Your task to perform on an android device: Clear the shopping cart on bestbuy.com. Add apple airpods pro to the cart on bestbuy.com Image 0: 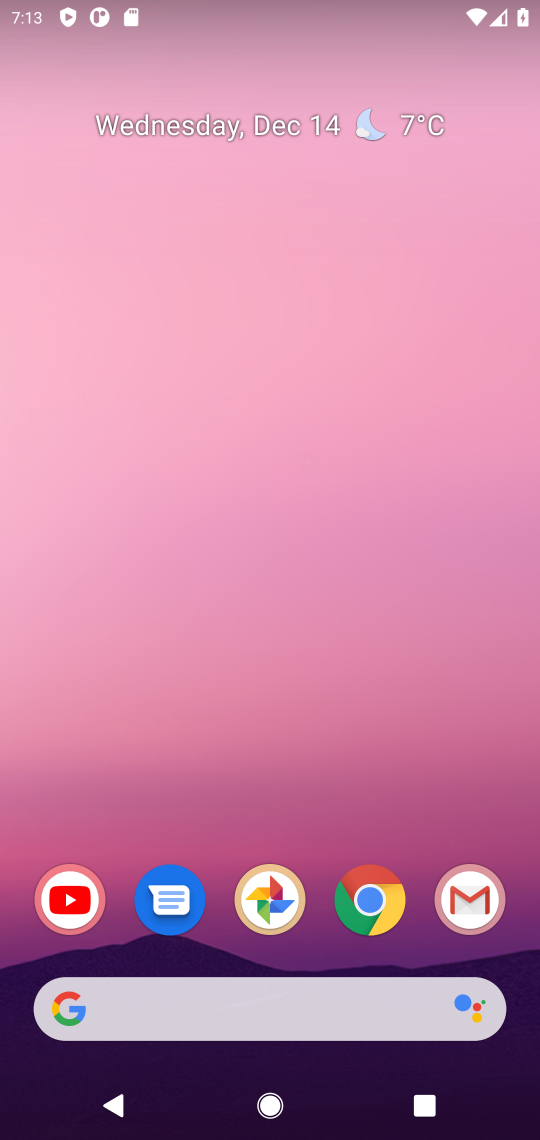
Step 0: click (243, 1002)
Your task to perform on an android device: Clear the shopping cart on bestbuy.com. Add apple airpods pro to the cart on bestbuy.com Image 1: 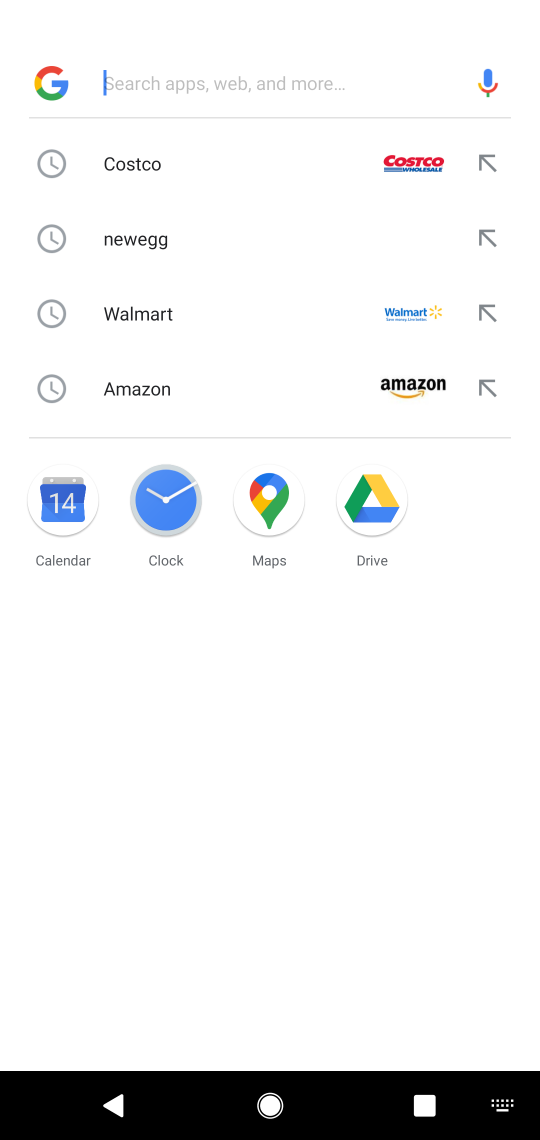
Step 1: type "bestbuy.com"
Your task to perform on an android device: Clear the shopping cart on bestbuy.com. Add apple airpods pro to the cart on bestbuy.com Image 2: 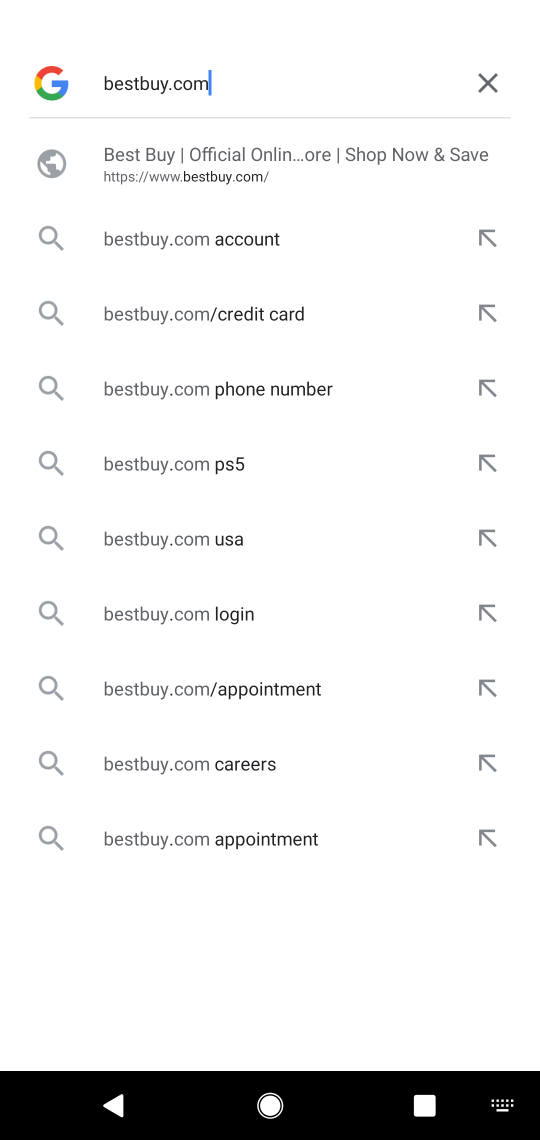
Step 2: click (231, 191)
Your task to perform on an android device: Clear the shopping cart on bestbuy.com. Add apple airpods pro to the cart on bestbuy.com Image 3: 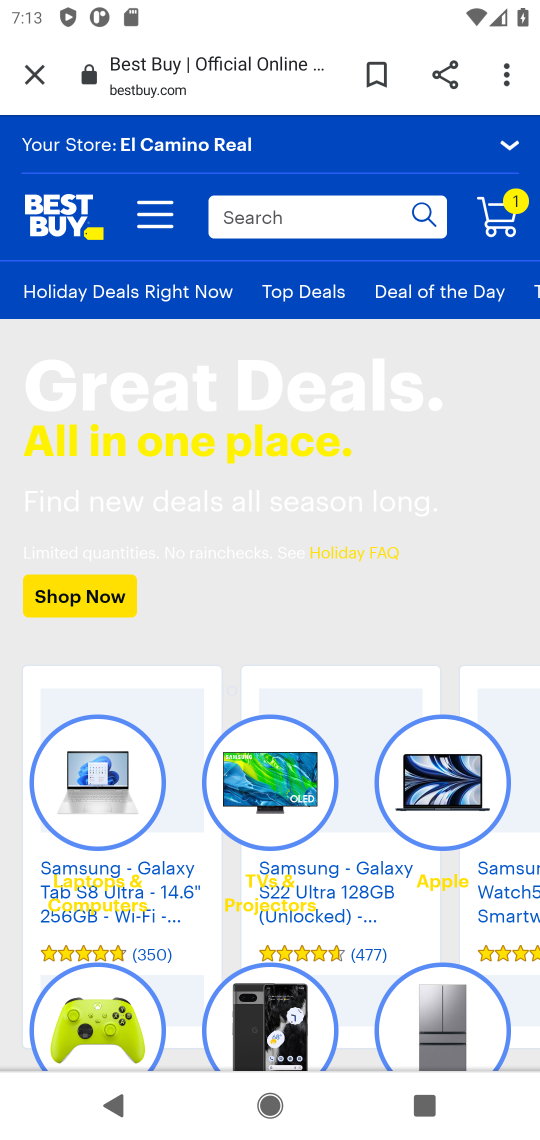
Step 3: click (501, 230)
Your task to perform on an android device: Clear the shopping cart on bestbuy.com. Add apple airpods pro to the cart on bestbuy.com Image 4: 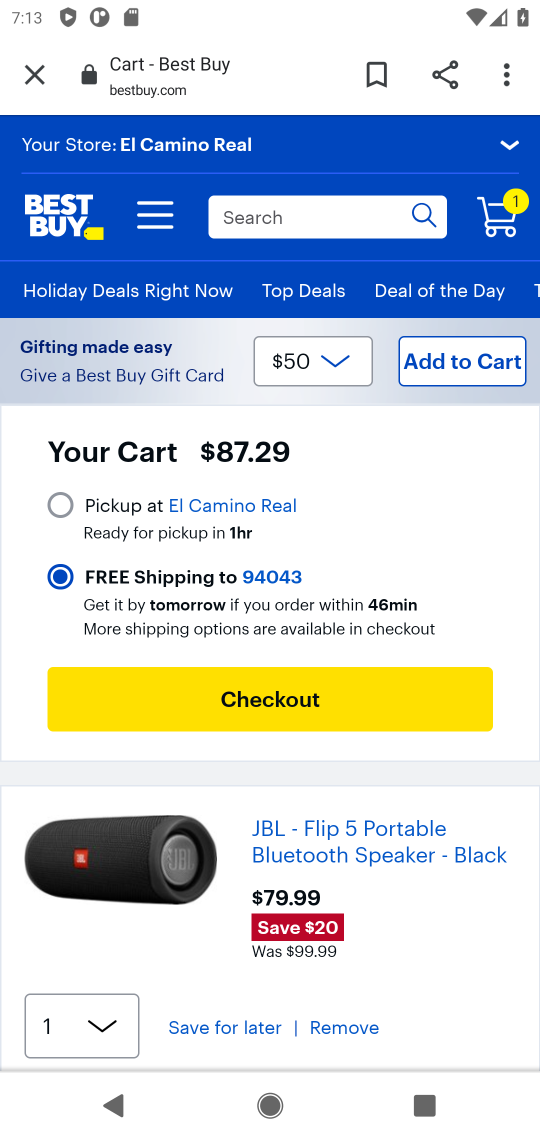
Step 4: click (322, 1030)
Your task to perform on an android device: Clear the shopping cart on bestbuy.com. Add apple airpods pro to the cart on bestbuy.com Image 5: 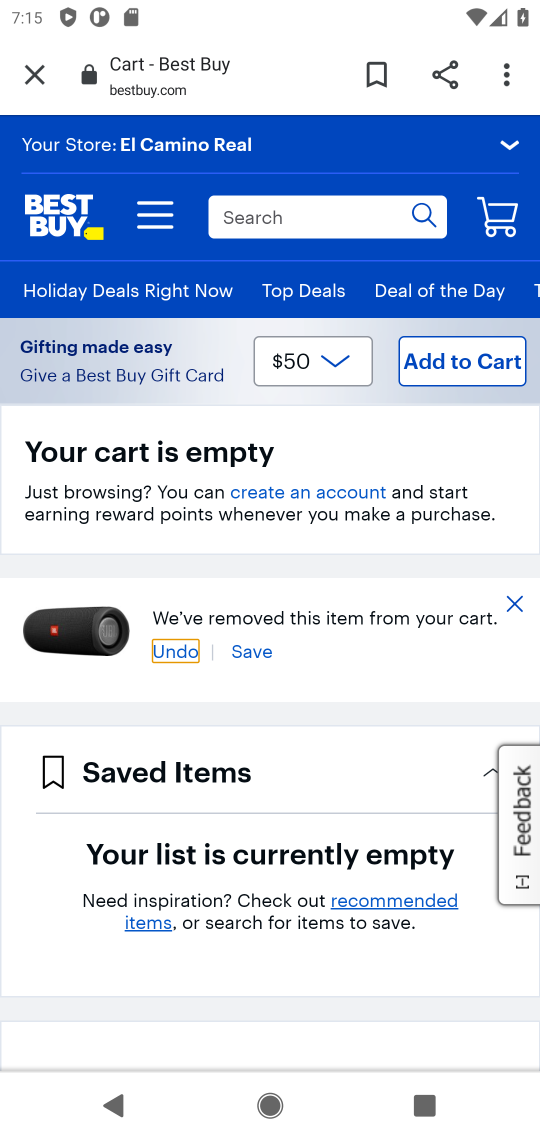
Step 5: click (362, 204)
Your task to perform on an android device: Clear the shopping cart on bestbuy.com. Add apple airpods pro to the cart on bestbuy.com Image 6: 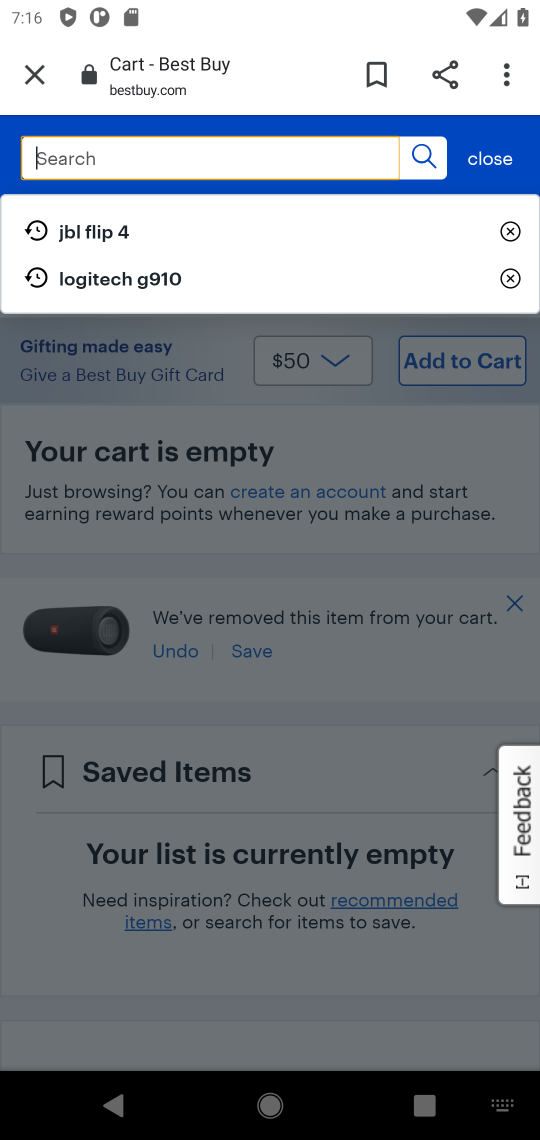
Step 6: type "apple airpods pro"
Your task to perform on an android device: Clear the shopping cart on bestbuy.com. Add apple airpods pro to the cart on bestbuy.com Image 7: 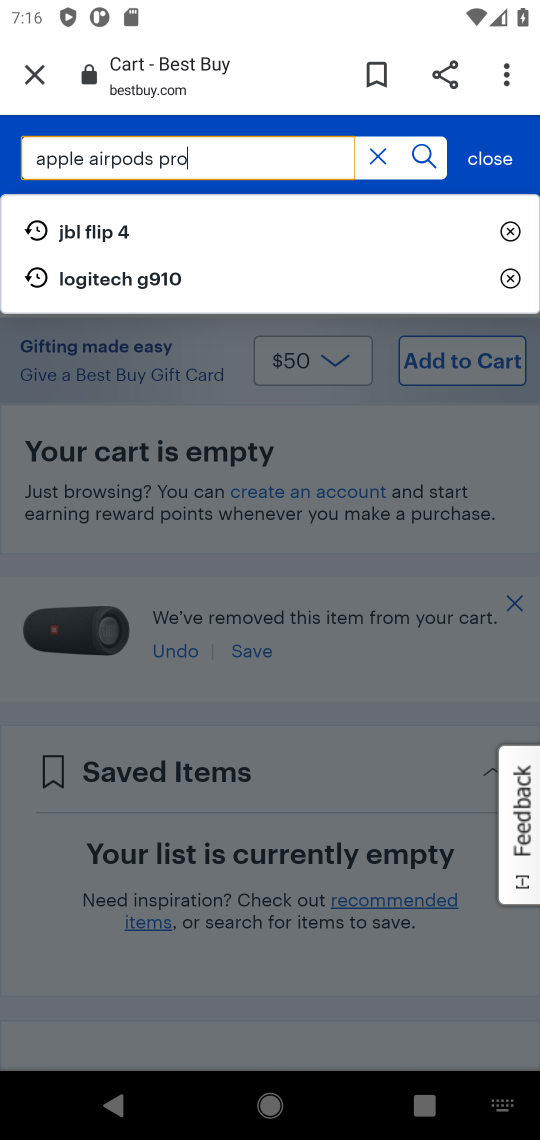
Step 7: type ""
Your task to perform on an android device: Clear the shopping cart on bestbuy.com. Add apple airpods pro to the cart on bestbuy.com Image 8: 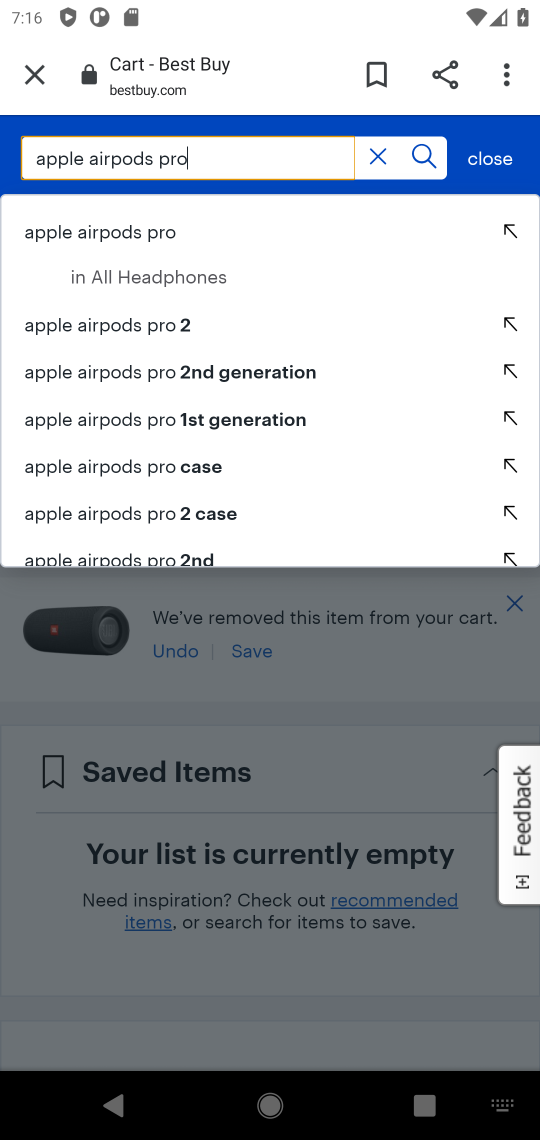
Step 8: click (413, 145)
Your task to perform on an android device: Clear the shopping cart on bestbuy.com. Add apple airpods pro to the cart on bestbuy.com Image 9: 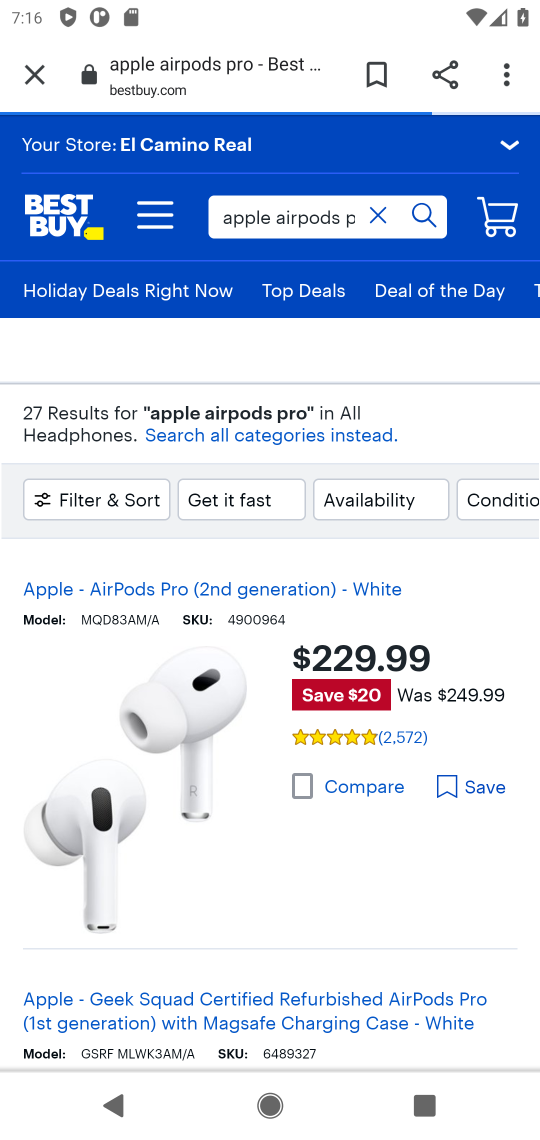
Step 9: drag from (203, 834) to (253, 620)
Your task to perform on an android device: Clear the shopping cart on bestbuy.com. Add apple airpods pro to the cart on bestbuy.com Image 10: 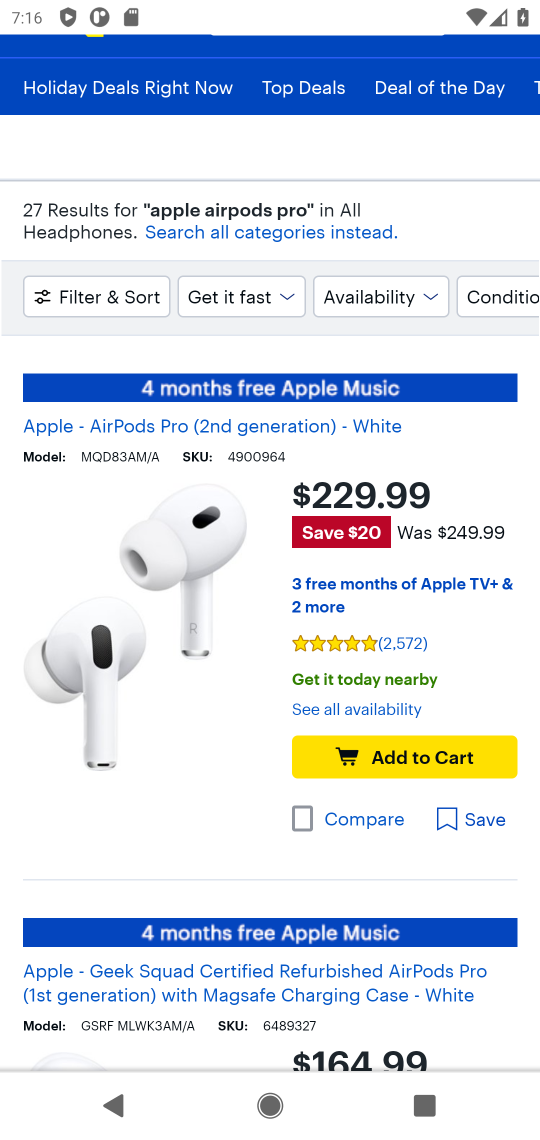
Step 10: click (403, 686)
Your task to perform on an android device: Clear the shopping cart on bestbuy.com. Add apple airpods pro to the cart on bestbuy.com Image 11: 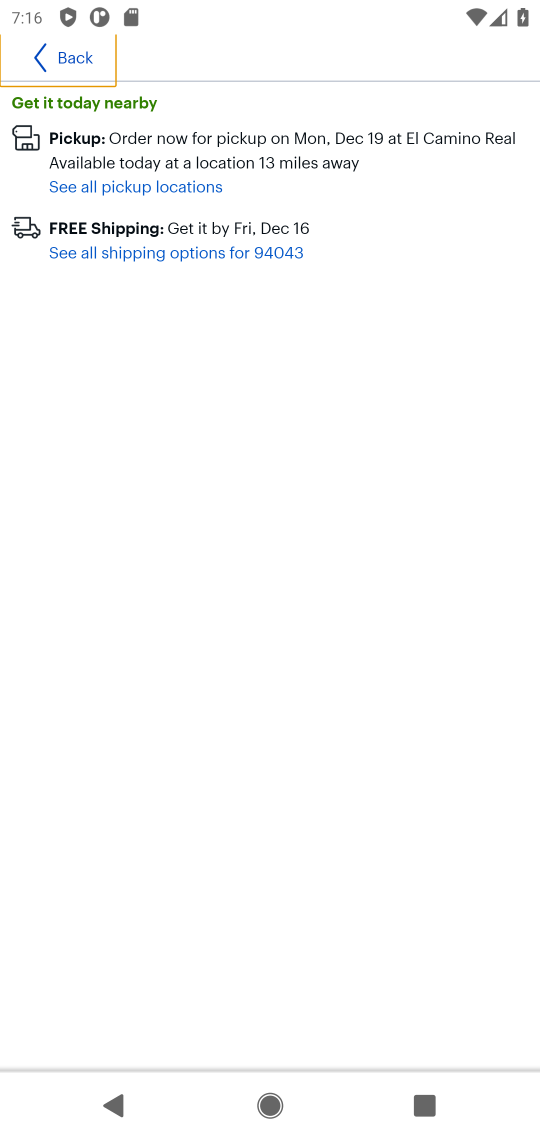
Step 11: click (48, 60)
Your task to perform on an android device: Clear the shopping cart on bestbuy.com. Add apple airpods pro to the cart on bestbuy.com Image 12: 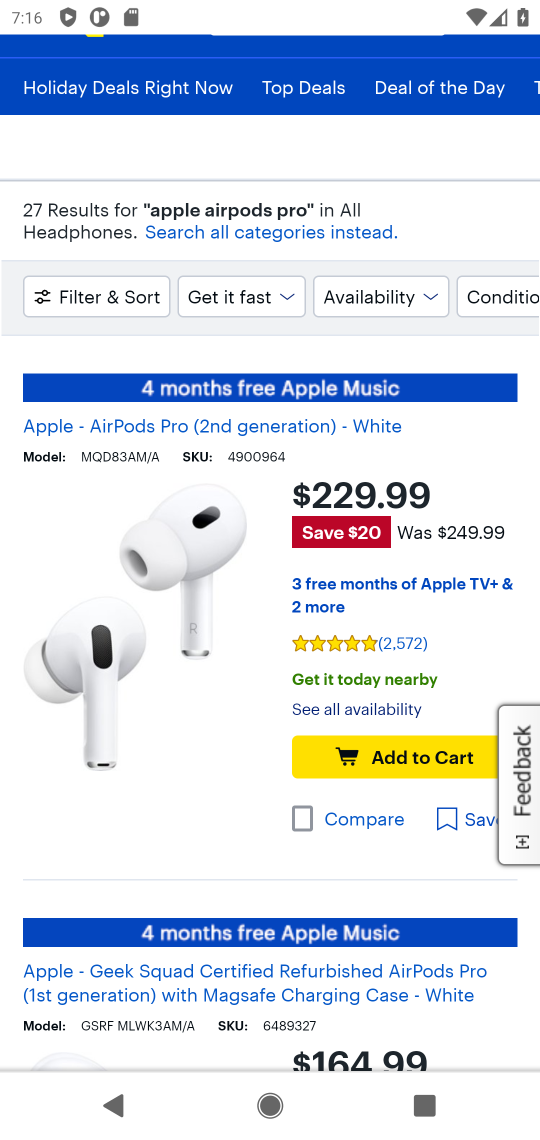
Step 12: click (393, 755)
Your task to perform on an android device: Clear the shopping cart on bestbuy.com. Add apple airpods pro to the cart on bestbuy.com Image 13: 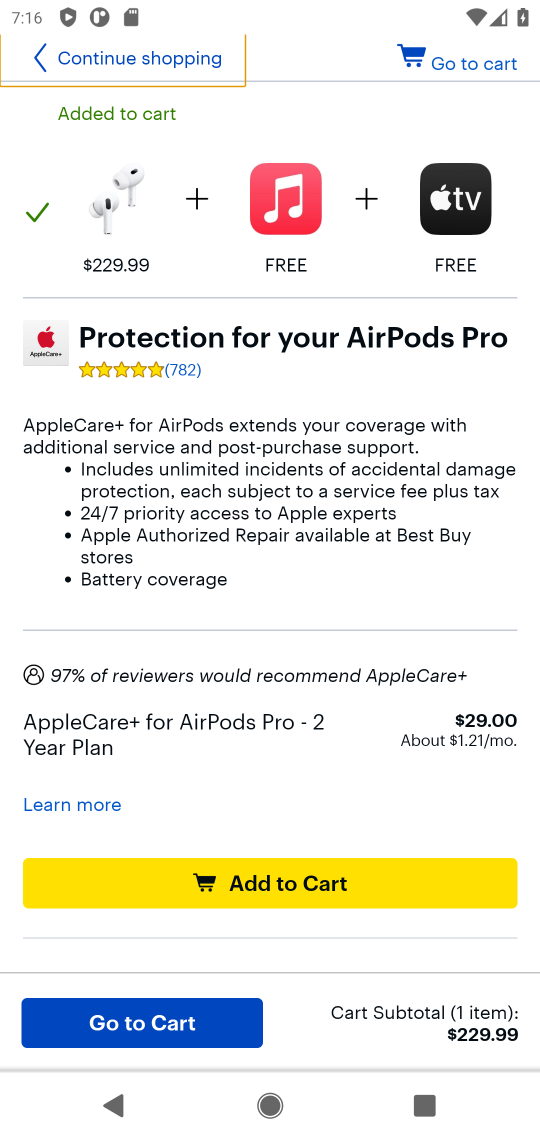
Step 13: task complete